Your task to perform on an android device: star an email in the gmail app Image 0: 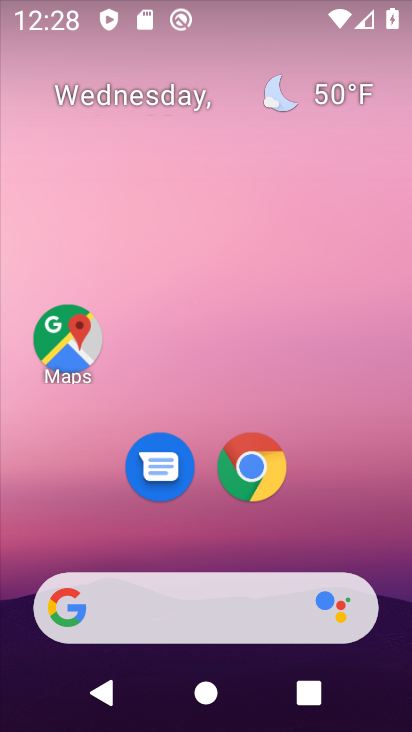
Step 0: drag from (200, 497) to (216, 59)
Your task to perform on an android device: star an email in the gmail app Image 1: 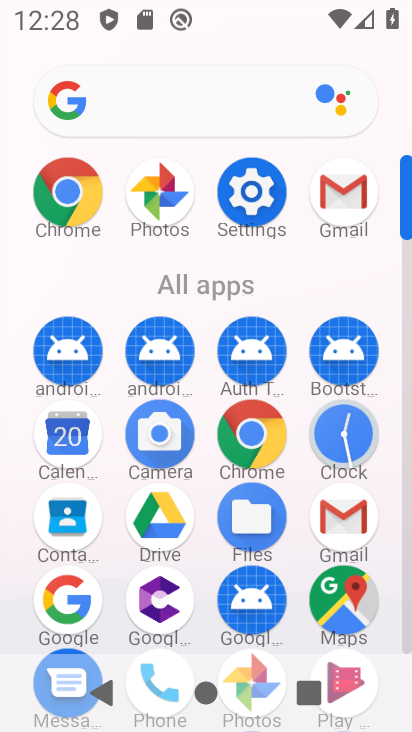
Step 1: click (343, 185)
Your task to perform on an android device: star an email in the gmail app Image 2: 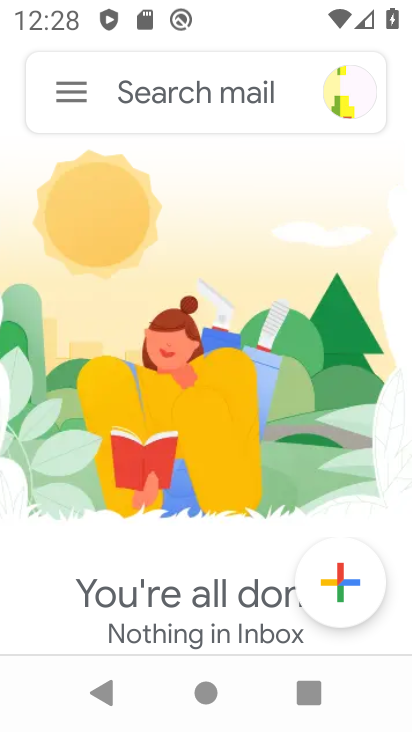
Step 2: task complete